Your task to perform on an android device: Play the last video I watched on Youtube Image 0: 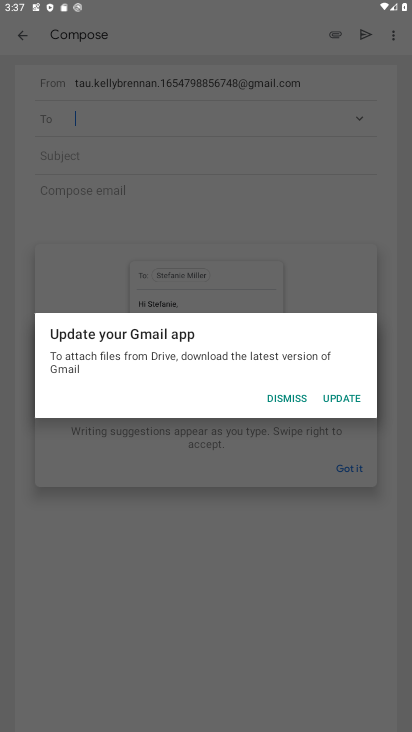
Step 0: press home button
Your task to perform on an android device: Play the last video I watched on Youtube Image 1: 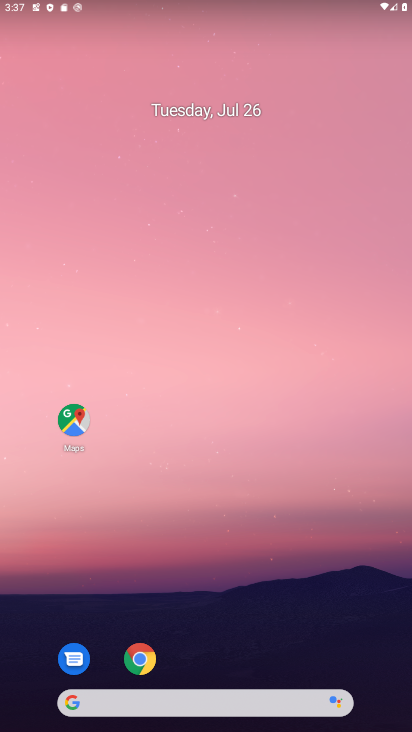
Step 1: drag from (340, 587) to (277, 238)
Your task to perform on an android device: Play the last video I watched on Youtube Image 2: 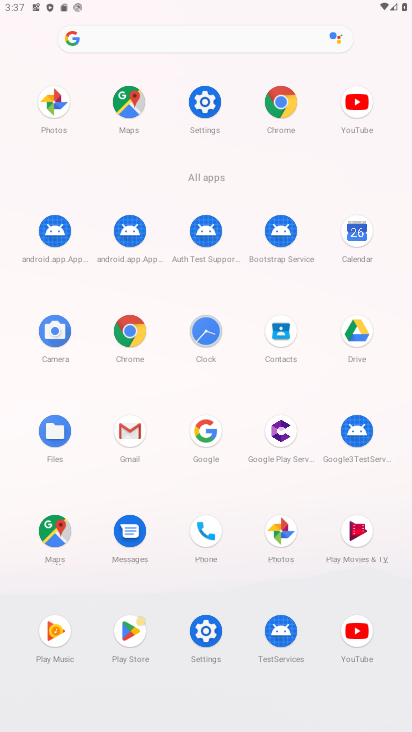
Step 2: click (358, 629)
Your task to perform on an android device: Play the last video I watched on Youtube Image 3: 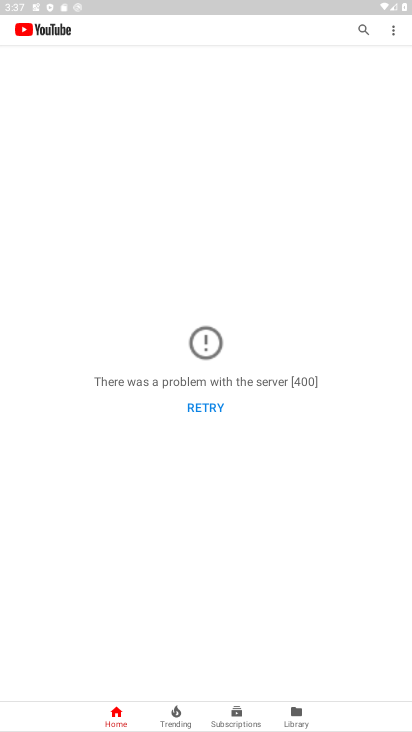
Step 3: click (292, 725)
Your task to perform on an android device: Play the last video I watched on Youtube Image 4: 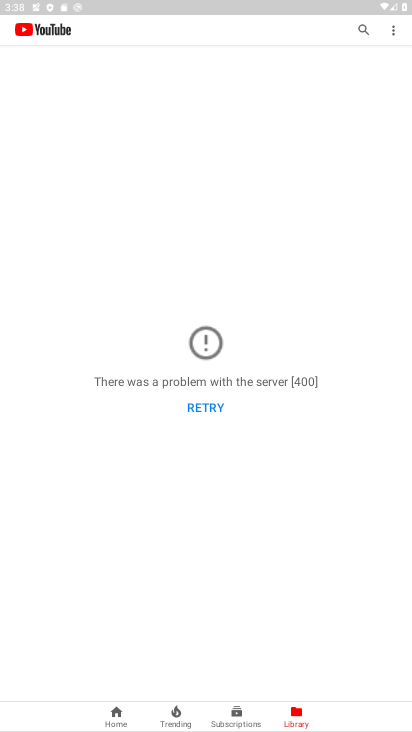
Step 4: click (209, 407)
Your task to perform on an android device: Play the last video I watched on Youtube Image 5: 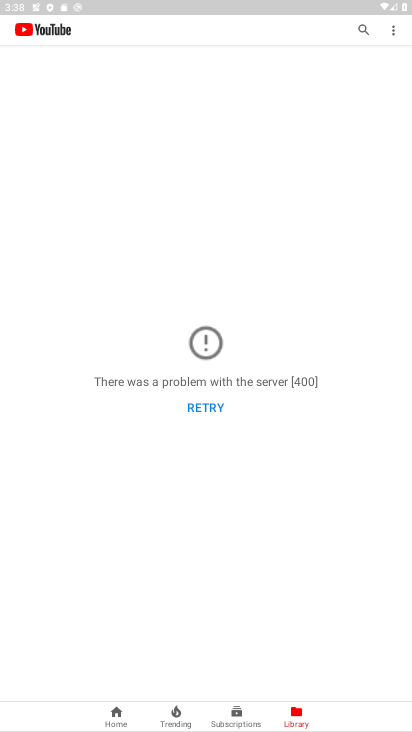
Step 5: click (209, 407)
Your task to perform on an android device: Play the last video I watched on Youtube Image 6: 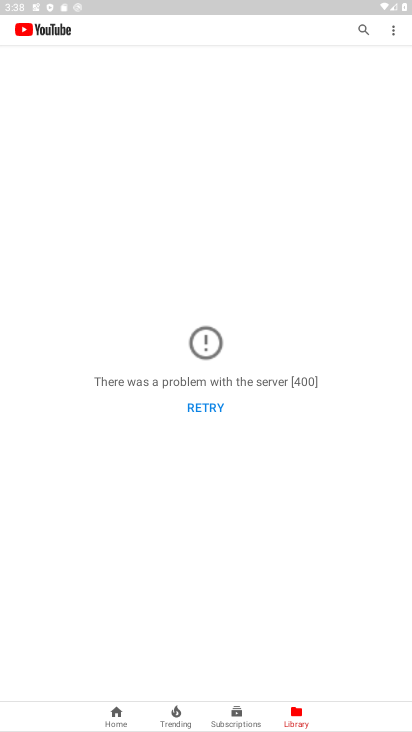
Step 6: task complete